Your task to perform on an android device: Empty the shopping cart on newegg.com. Search for usb-c to usb-b on newegg.com, select the first entry, add it to the cart, then select checkout. Image 0: 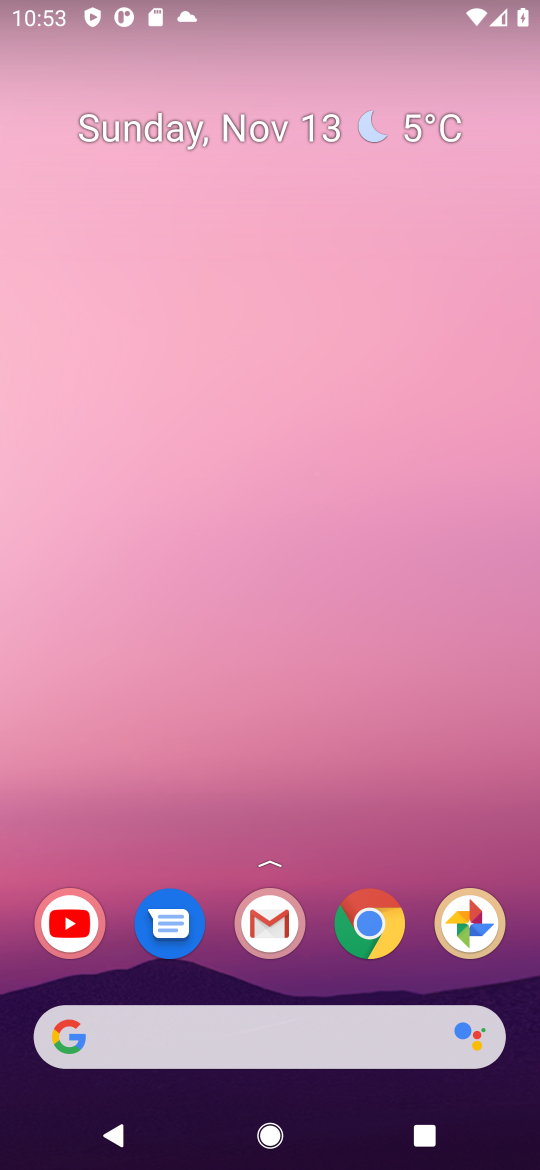
Step 0: click (362, 938)
Your task to perform on an android device: Empty the shopping cart on newegg.com. Search for usb-c to usb-b on newegg.com, select the first entry, add it to the cart, then select checkout. Image 1: 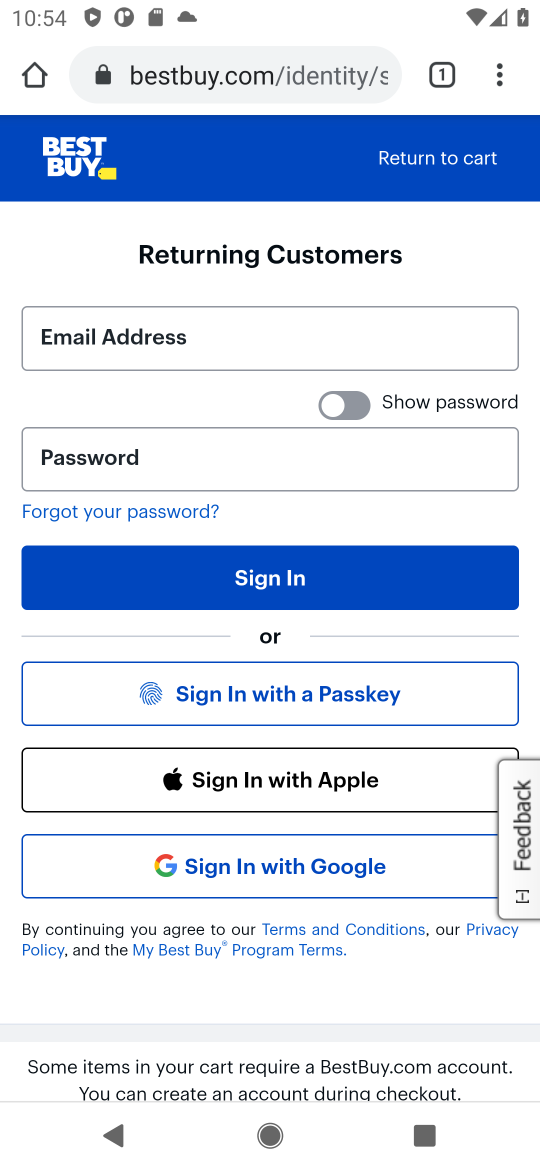
Step 1: click (233, 81)
Your task to perform on an android device: Empty the shopping cart on newegg.com. Search for usb-c to usb-b on newegg.com, select the first entry, add it to the cart, then select checkout. Image 2: 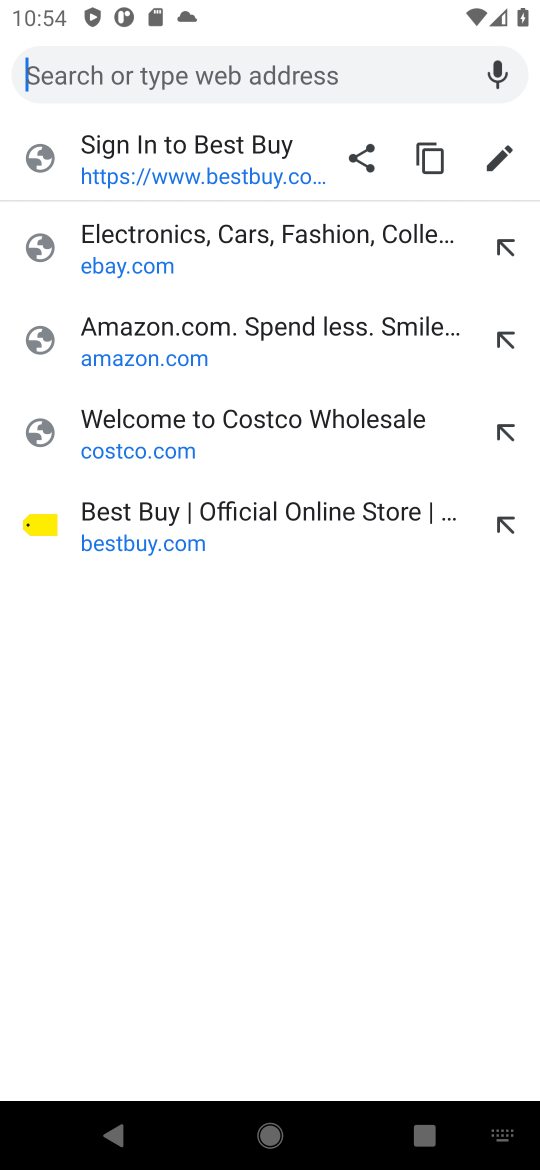
Step 2: type "newegg.com"
Your task to perform on an android device: Empty the shopping cart on newegg.com. Search for usb-c to usb-b on newegg.com, select the first entry, add it to the cart, then select checkout. Image 3: 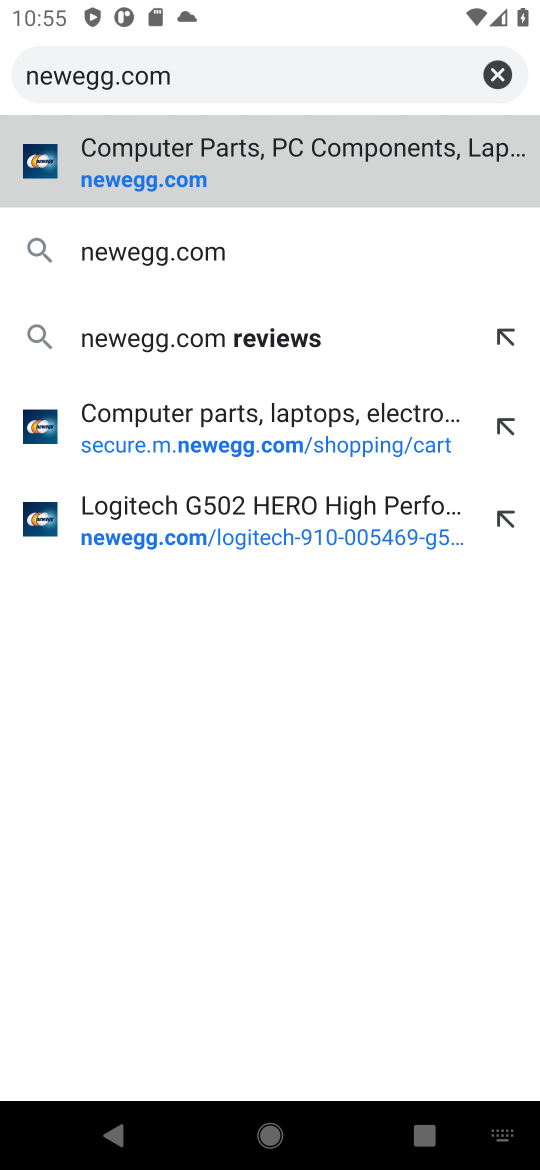
Step 3: click (299, 178)
Your task to perform on an android device: Empty the shopping cart on newegg.com. Search for usb-c to usb-b on newegg.com, select the first entry, add it to the cart, then select checkout. Image 4: 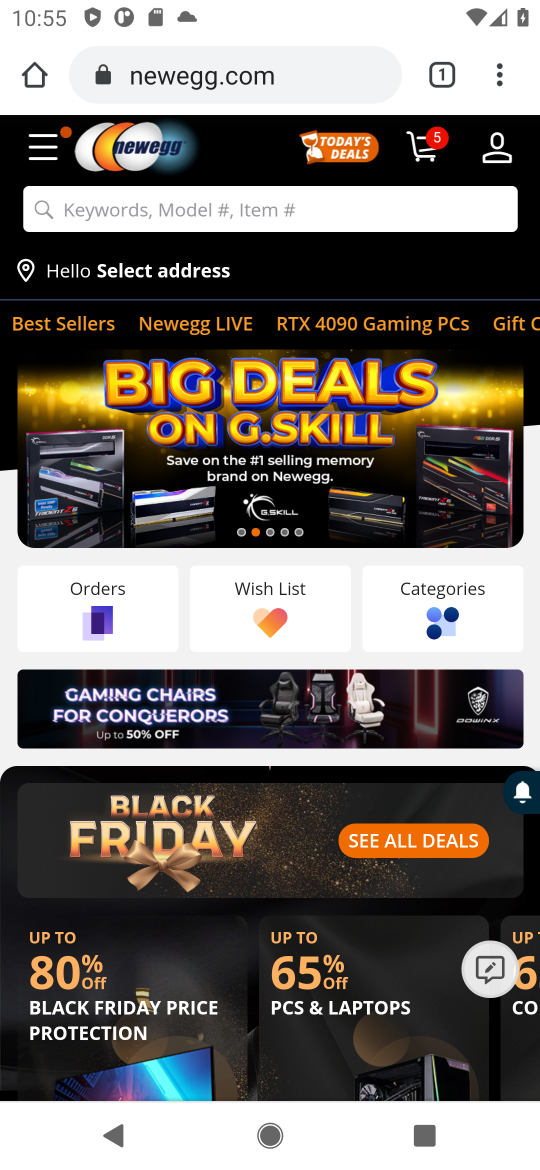
Step 4: click (424, 158)
Your task to perform on an android device: Empty the shopping cart on newegg.com. Search for usb-c to usb-b on newegg.com, select the first entry, add it to the cart, then select checkout. Image 5: 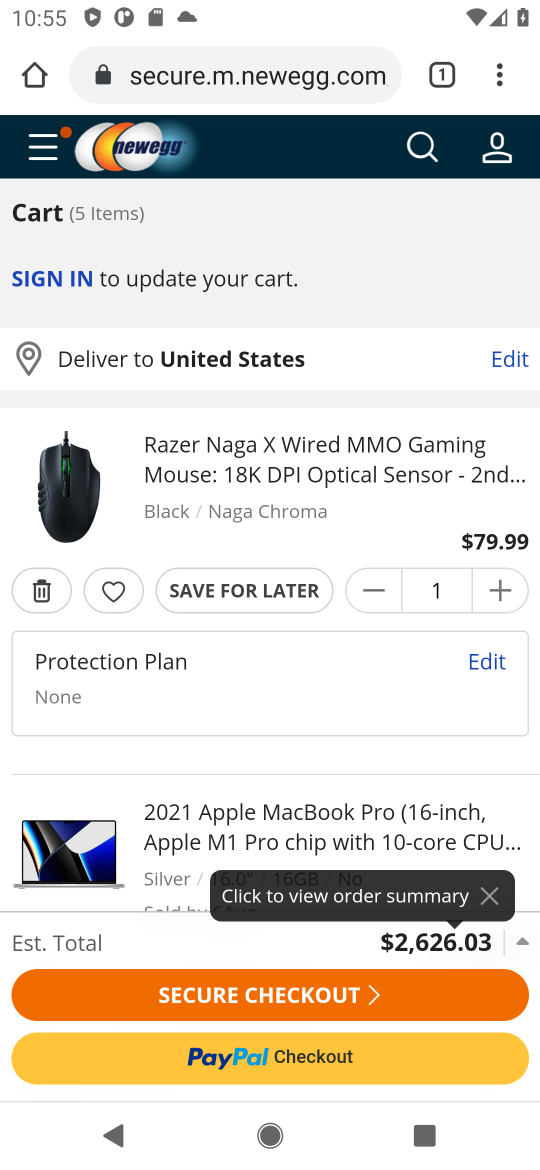
Step 5: click (52, 589)
Your task to perform on an android device: Empty the shopping cart on newegg.com. Search for usb-c to usb-b on newegg.com, select the first entry, add it to the cart, then select checkout. Image 6: 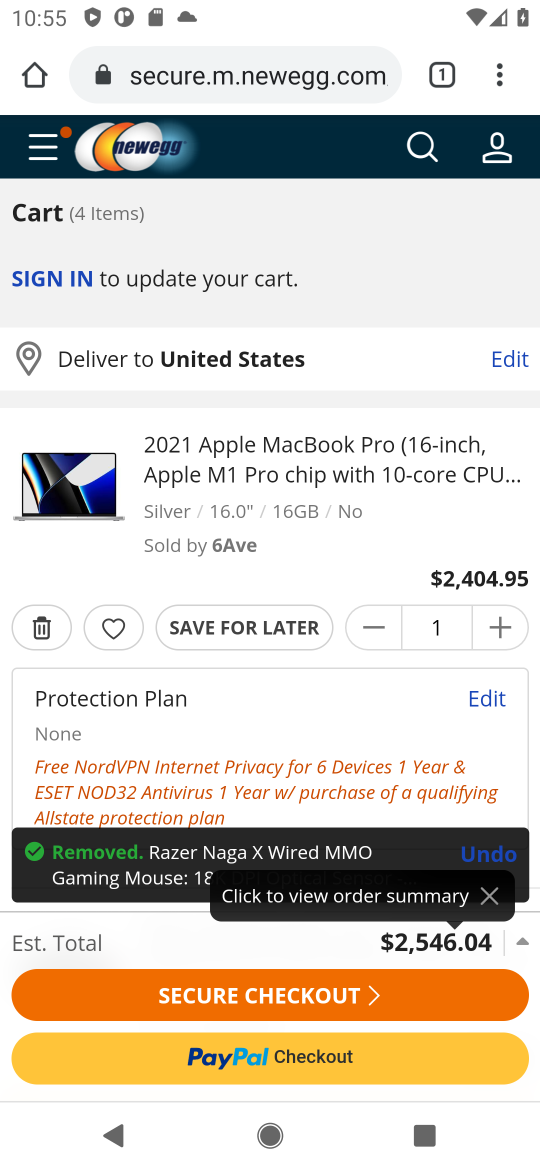
Step 6: click (45, 635)
Your task to perform on an android device: Empty the shopping cart on newegg.com. Search for usb-c to usb-b on newegg.com, select the first entry, add it to the cart, then select checkout. Image 7: 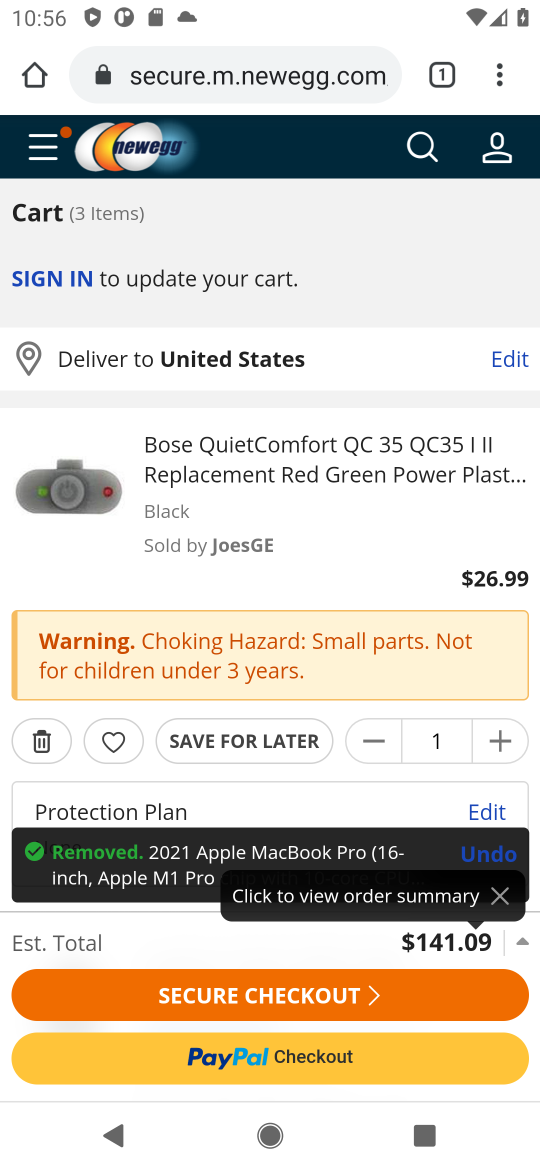
Step 7: click (46, 738)
Your task to perform on an android device: Empty the shopping cart on newegg.com. Search for usb-c to usb-b on newegg.com, select the first entry, add it to the cart, then select checkout. Image 8: 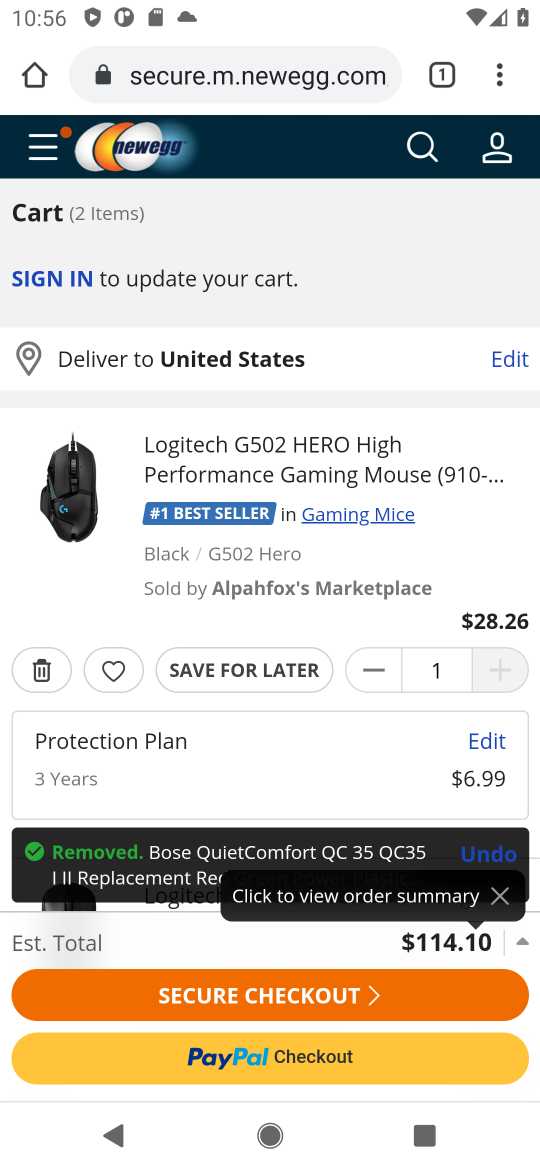
Step 8: click (34, 672)
Your task to perform on an android device: Empty the shopping cart on newegg.com. Search for usb-c to usb-b on newegg.com, select the first entry, add it to the cart, then select checkout. Image 9: 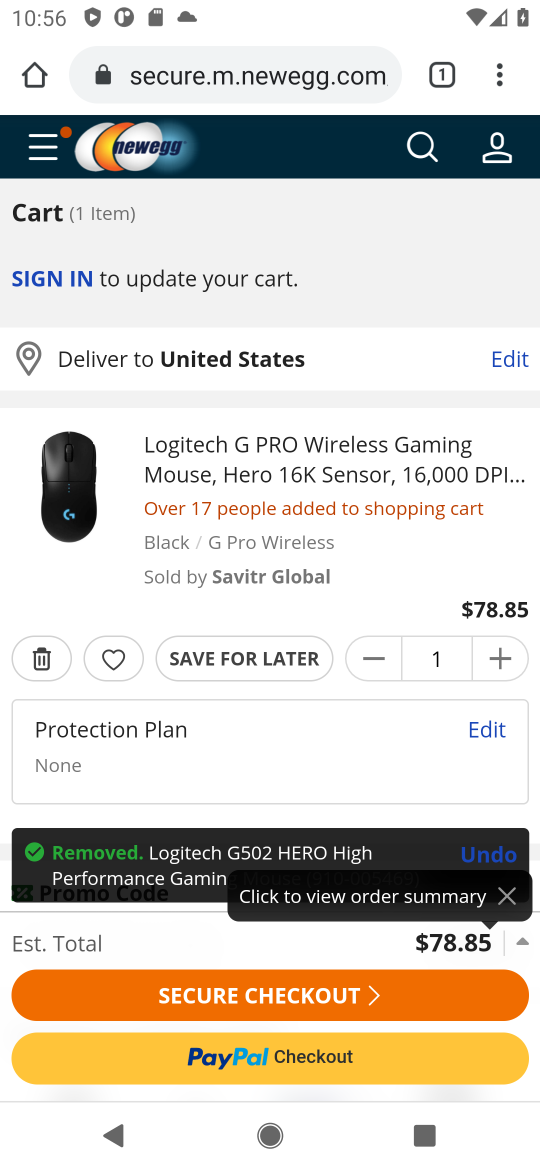
Step 9: click (26, 669)
Your task to perform on an android device: Empty the shopping cart on newegg.com. Search for usb-c to usb-b on newegg.com, select the first entry, add it to the cart, then select checkout. Image 10: 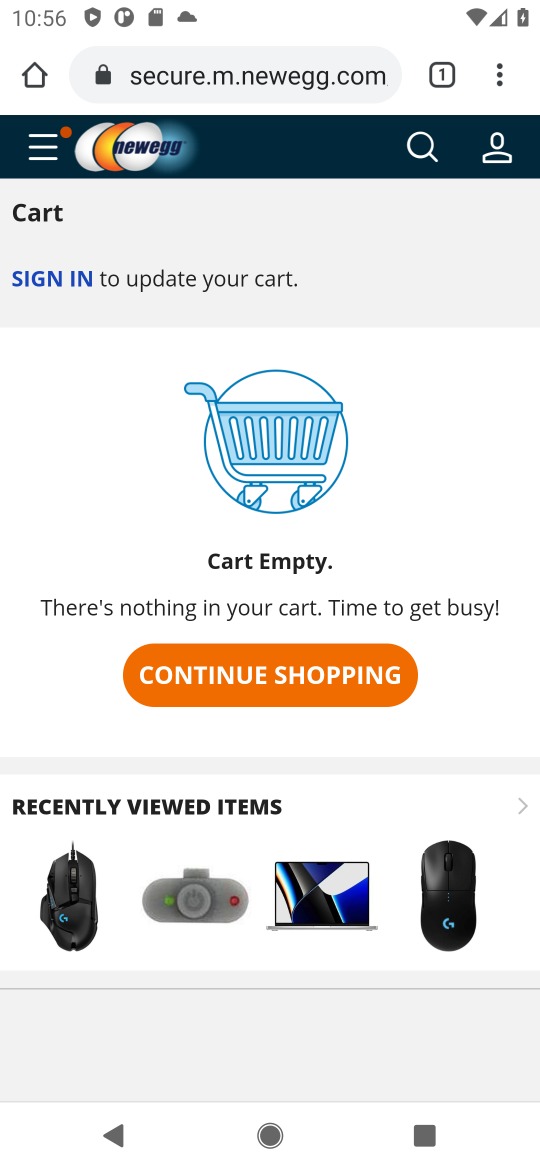
Step 10: click (416, 186)
Your task to perform on an android device: Empty the shopping cart on newegg.com. Search for usb-c to usb-b on newegg.com, select the first entry, add it to the cart, then select checkout. Image 11: 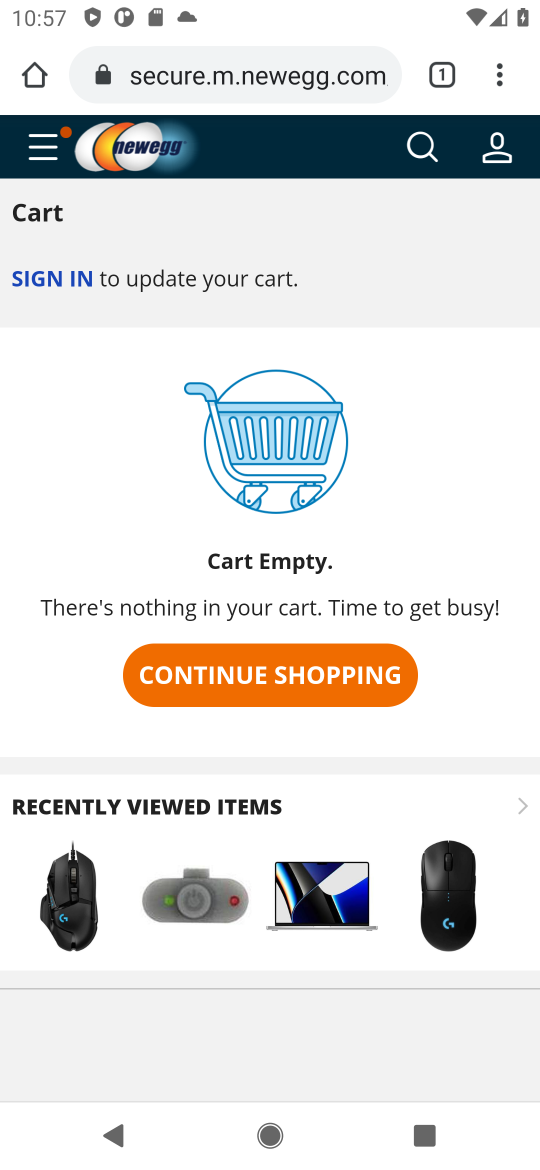
Step 11: click (423, 156)
Your task to perform on an android device: Empty the shopping cart on newegg.com. Search for usb-c to usb-b on newegg.com, select the first entry, add it to the cart, then select checkout. Image 12: 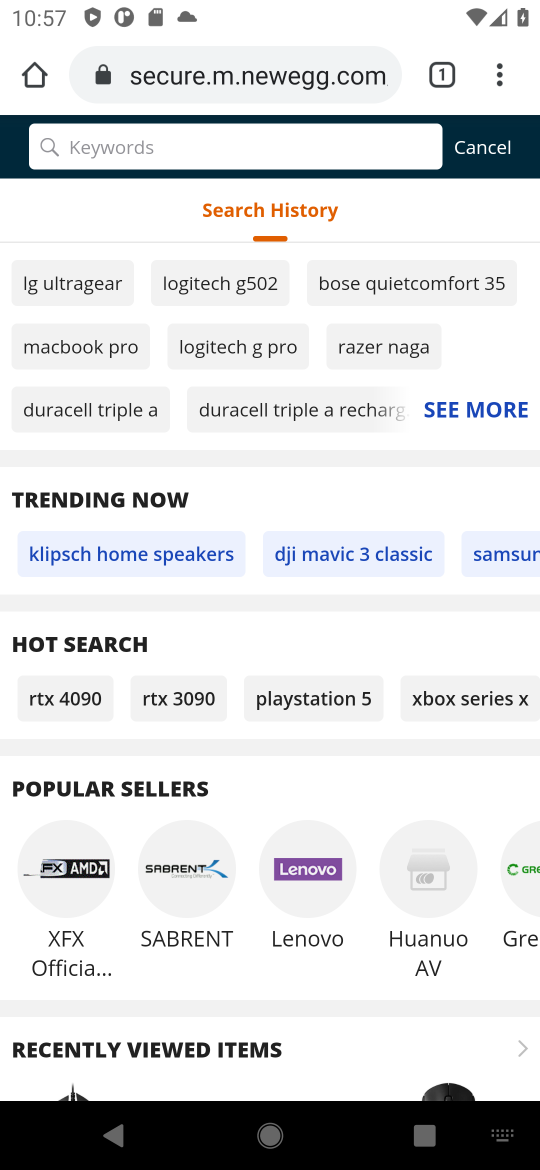
Step 12: type "usb-c to usb-b "
Your task to perform on an android device: Empty the shopping cart on newegg.com. Search for usb-c to usb-b on newegg.com, select the first entry, add it to the cart, then select checkout. Image 13: 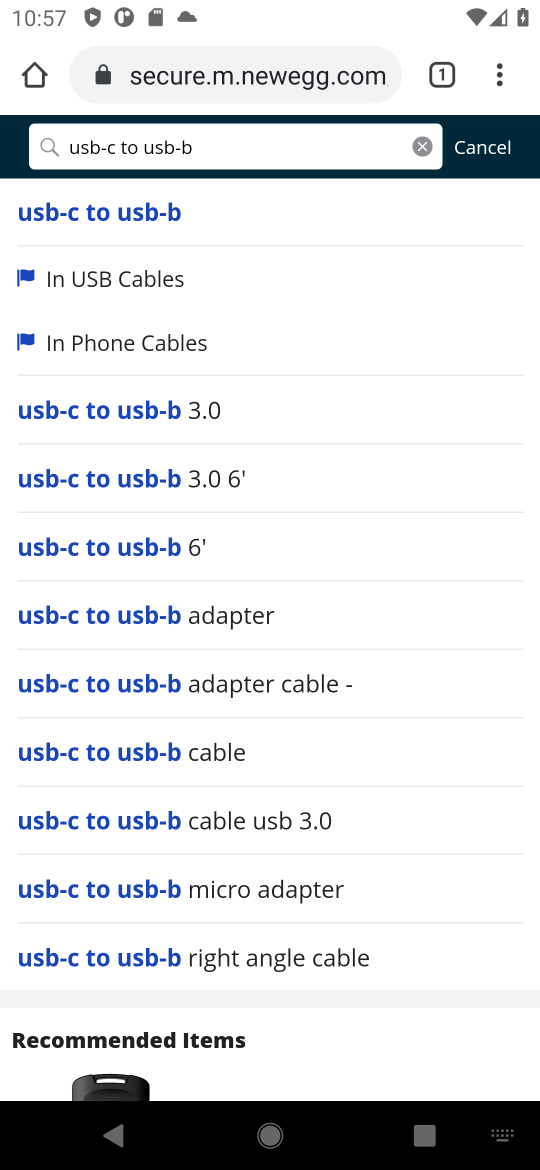
Step 13: press enter
Your task to perform on an android device: Empty the shopping cart on newegg.com. Search for usb-c to usb-b on newegg.com, select the first entry, add it to the cart, then select checkout. Image 14: 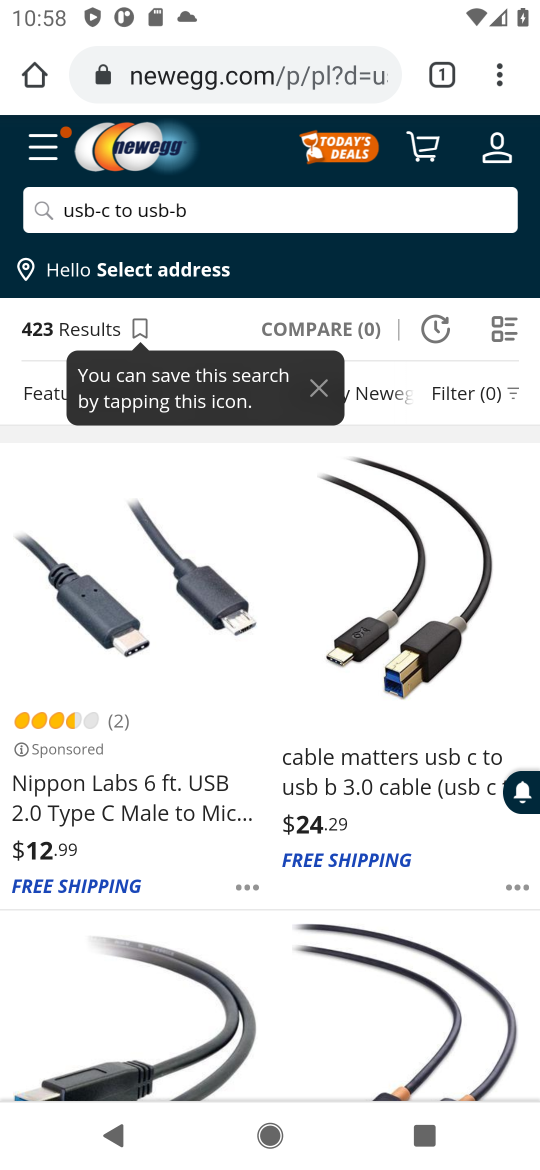
Step 14: click (392, 669)
Your task to perform on an android device: Empty the shopping cart on newegg.com. Search for usb-c to usb-b on newegg.com, select the first entry, add it to the cart, then select checkout. Image 15: 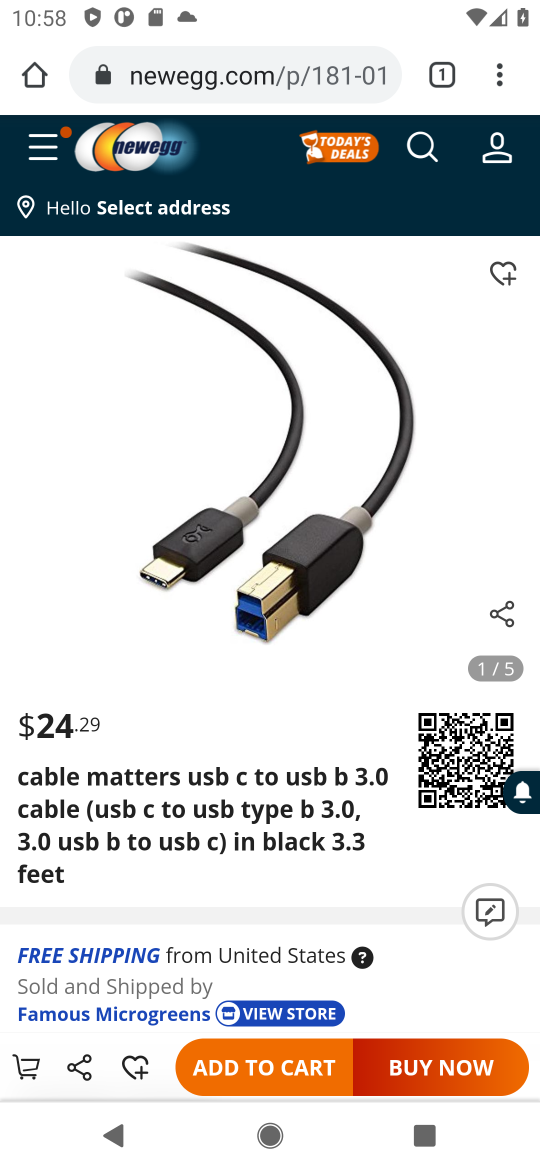
Step 15: click (256, 1067)
Your task to perform on an android device: Empty the shopping cart on newegg.com. Search for usb-c to usb-b on newegg.com, select the first entry, add it to the cart, then select checkout. Image 16: 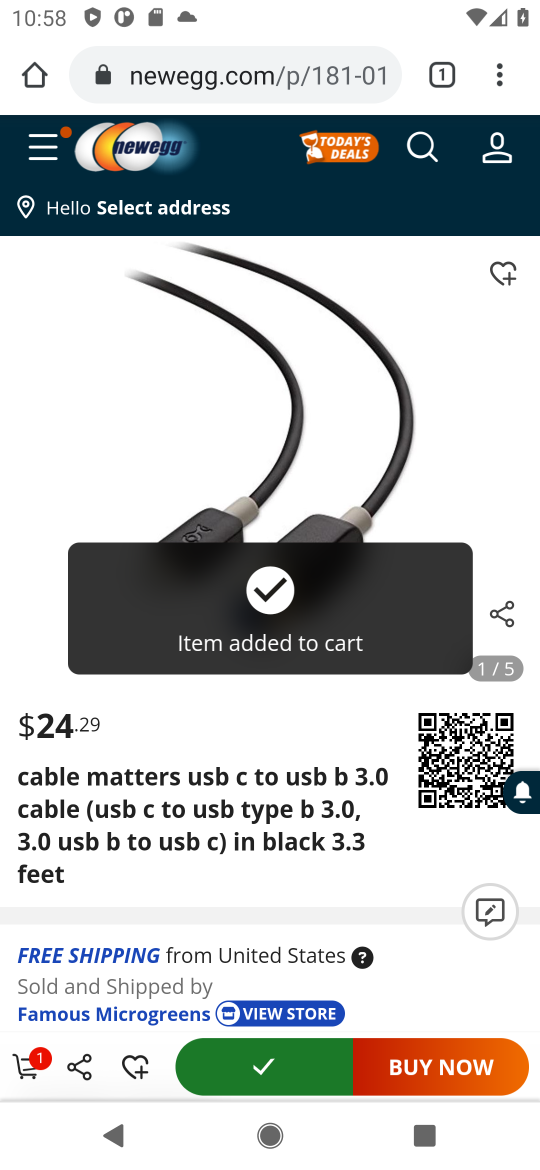
Step 16: click (40, 1073)
Your task to perform on an android device: Empty the shopping cart on newegg.com. Search for usb-c to usb-b on newegg.com, select the first entry, add it to the cart, then select checkout. Image 17: 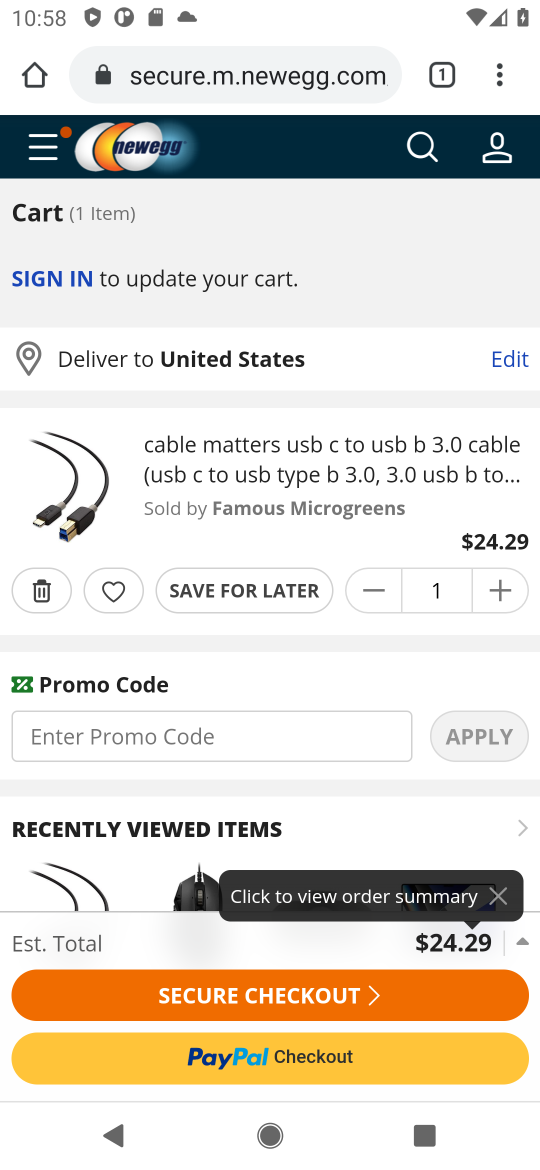
Step 17: click (218, 984)
Your task to perform on an android device: Empty the shopping cart on newegg.com. Search for usb-c to usb-b on newegg.com, select the first entry, add it to the cart, then select checkout. Image 18: 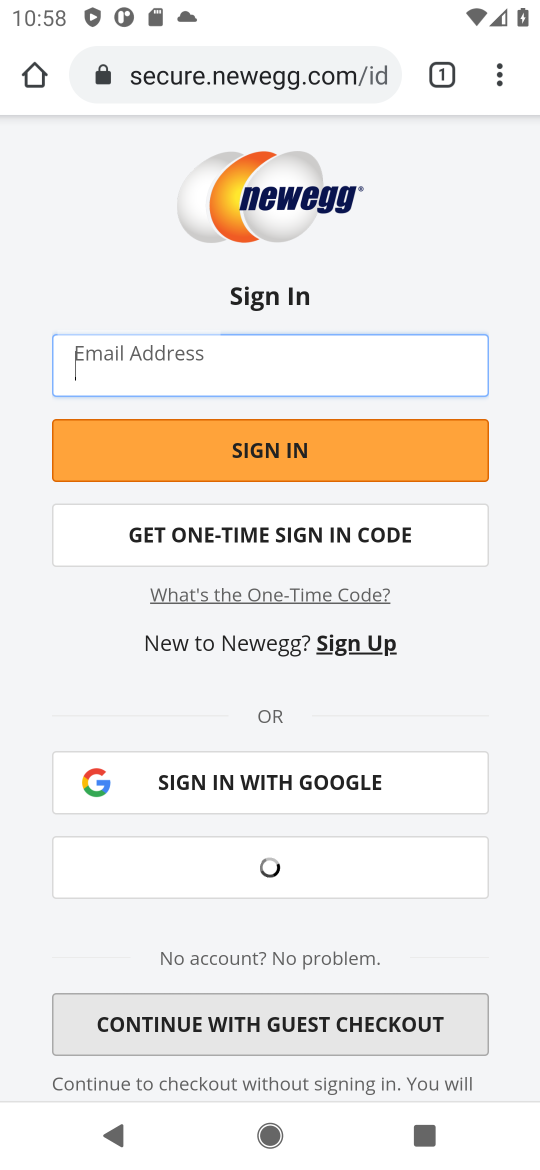
Step 18: task complete